Your task to perform on an android device: turn off airplane mode Image 0: 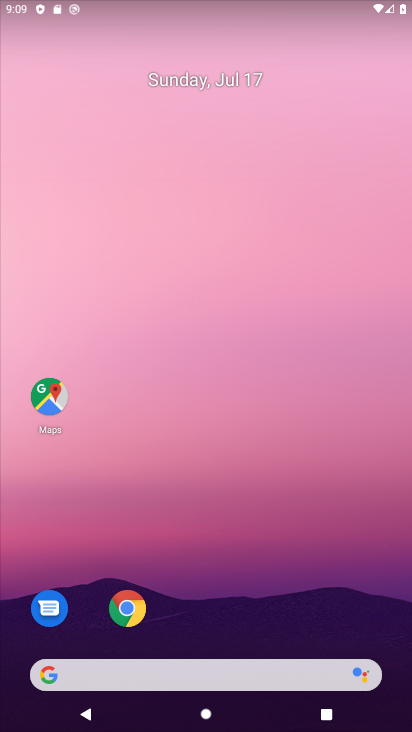
Step 0: drag from (196, 684) to (305, 120)
Your task to perform on an android device: turn off airplane mode Image 1: 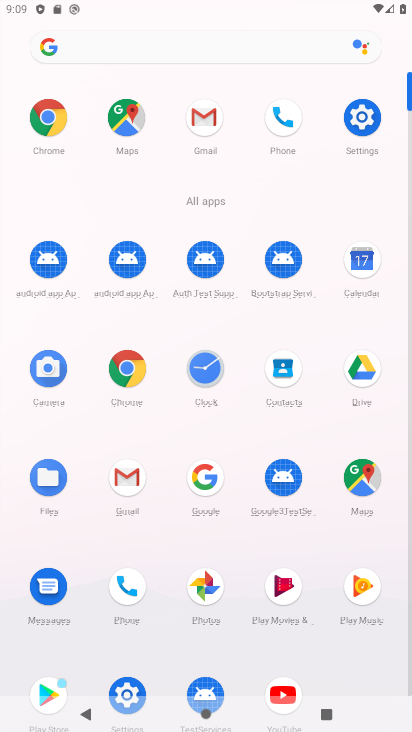
Step 1: click (134, 689)
Your task to perform on an android device: turn off airplane mode Image 2: 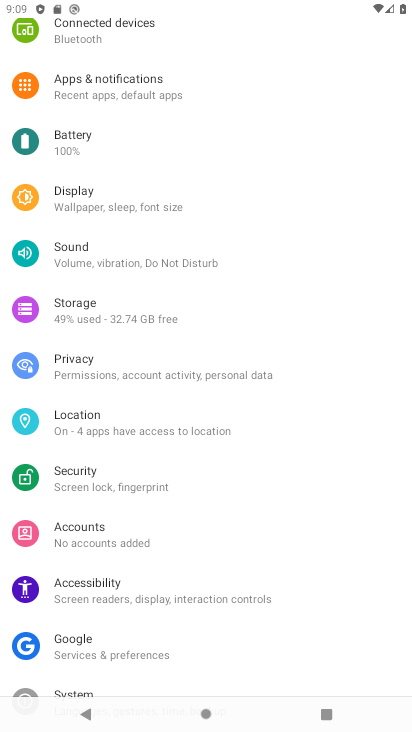
Step 2: drag from (183, 78) to (143, 427)
Your task to perform on an android device: turn off airplane mode Image 3: 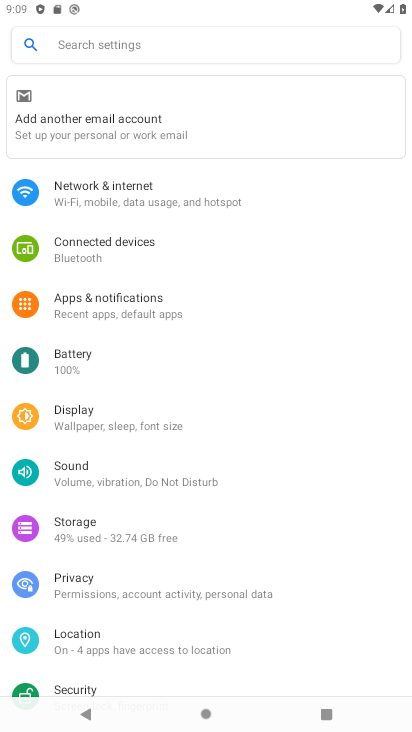
Step 3: click (152, 191)
Your task to perform on an android device: turn off airplane mode Image 4: 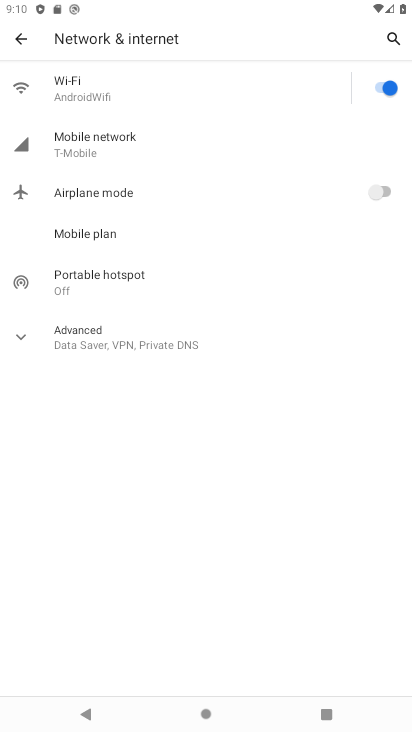
Step 4: task complete